Your task to perform on an android device: Show me popular videos on Youtube Image 0: 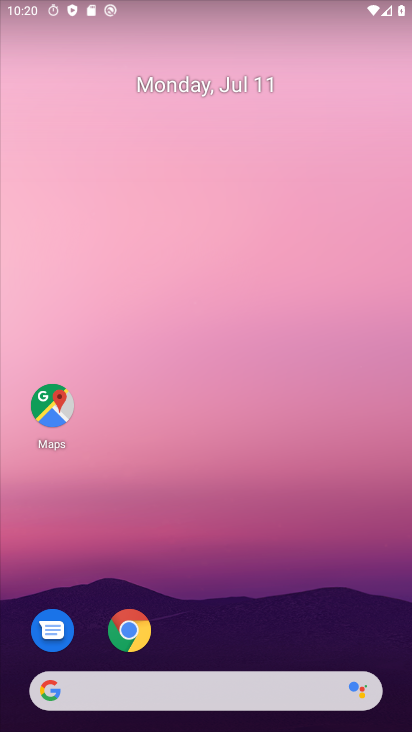
Step 0: drag from (342, 676) to (382, 133)
Your task to perform on an android device: Show me popular videos on Youtube Image 1: 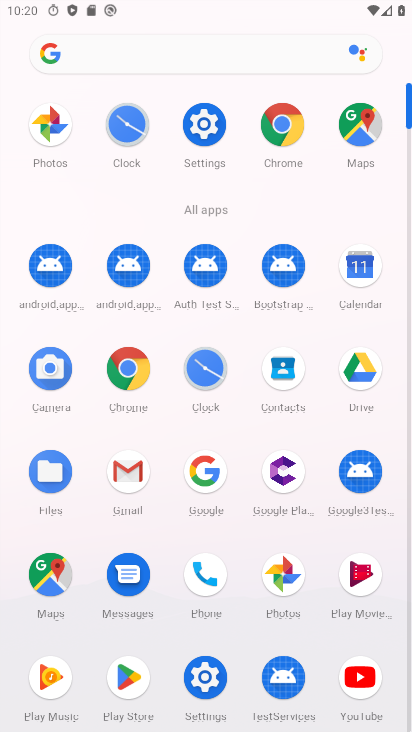
Step 1: drag from (319, 645) to (340, 307)
Your task to perform on an android device: Show me popular videos on Youtube Image 2: 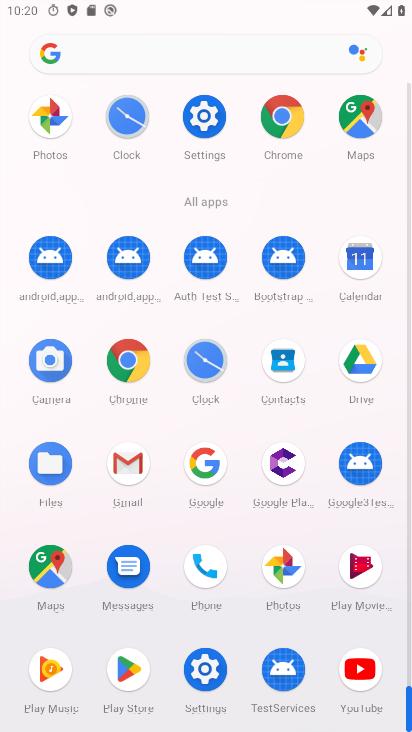
Step 2: click (362, 660)
Your task to perform on an android device: Show me popular videos on Youtube Image 3: 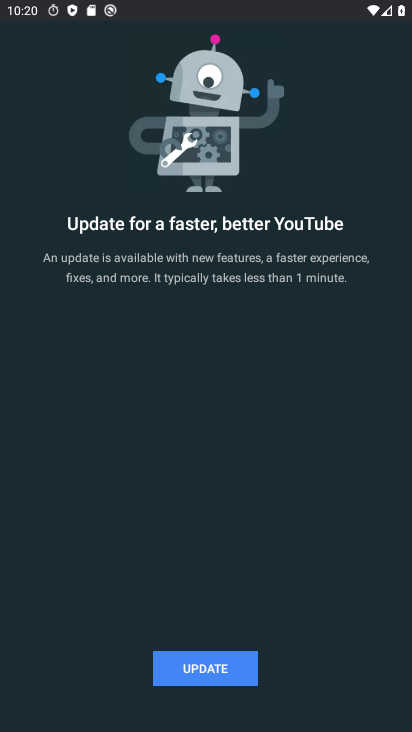
Step 3: drag from (224, 662) to (178, 662)
Your task to perform on an android device: Show me popular videos on Youtube Image 4: 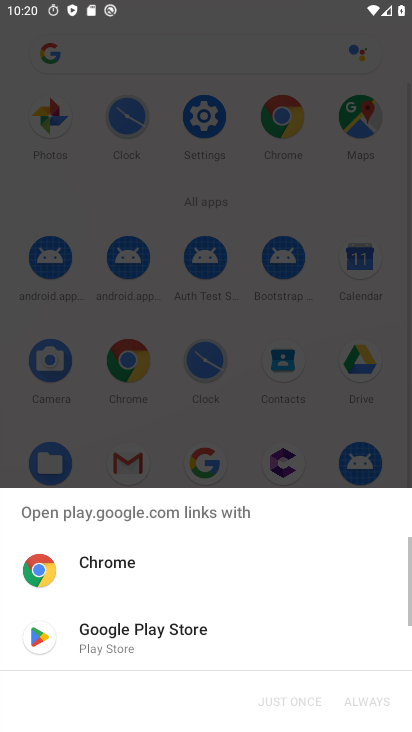
Step 4: click (147, 647)
Your task to perform on an android device: Show me popular videos on Youtube Image 5: 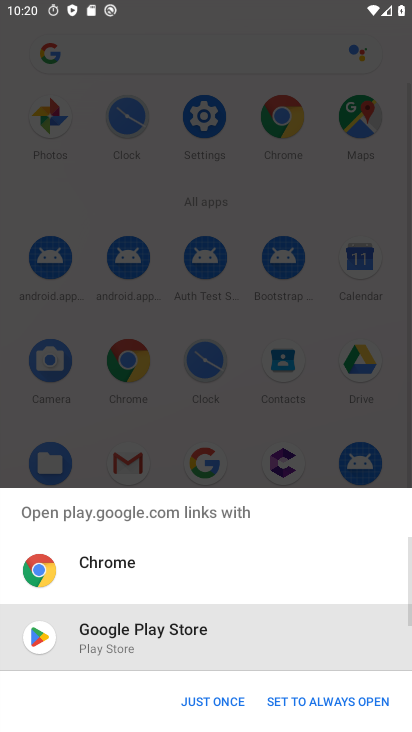
Step 5: click (223, 707)
Your task to perform on an android device: Show me popular videos on Youtube Image 6: 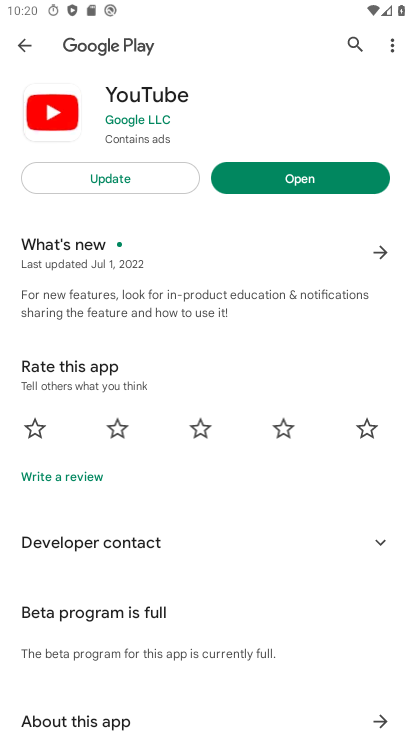
Step 6: click (126, 186)
Your task to perform on an android device: Show me popular videos on Youtube Image 7: 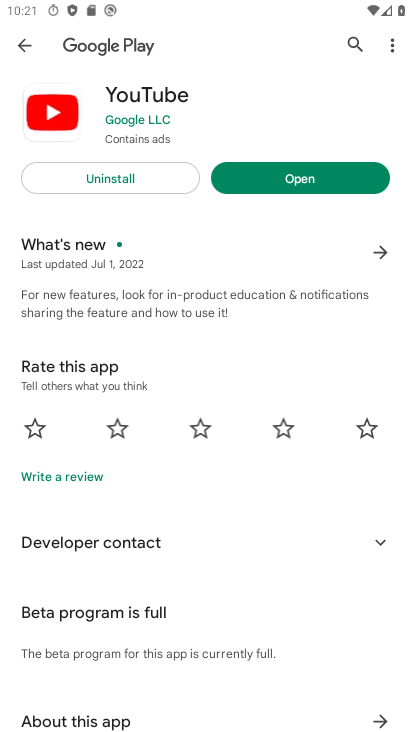
Step 7: click (255, 181)
Your task to perform on an android device: Show me popular videos on Youtube Image 8: 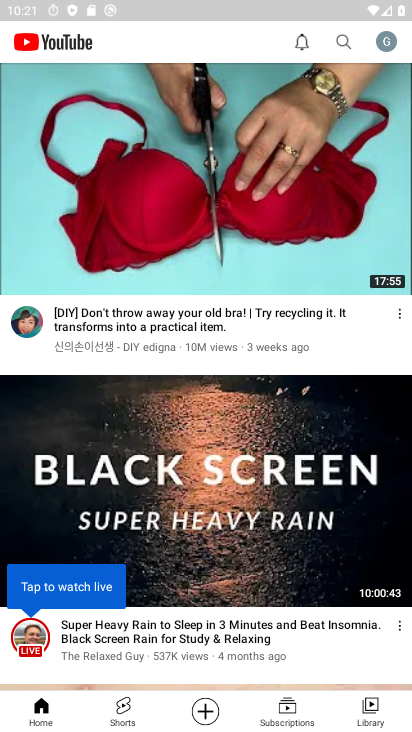
Step 8: task complete